Your task to perform on an android device: Go to calendar. Show me events next week Image 0: 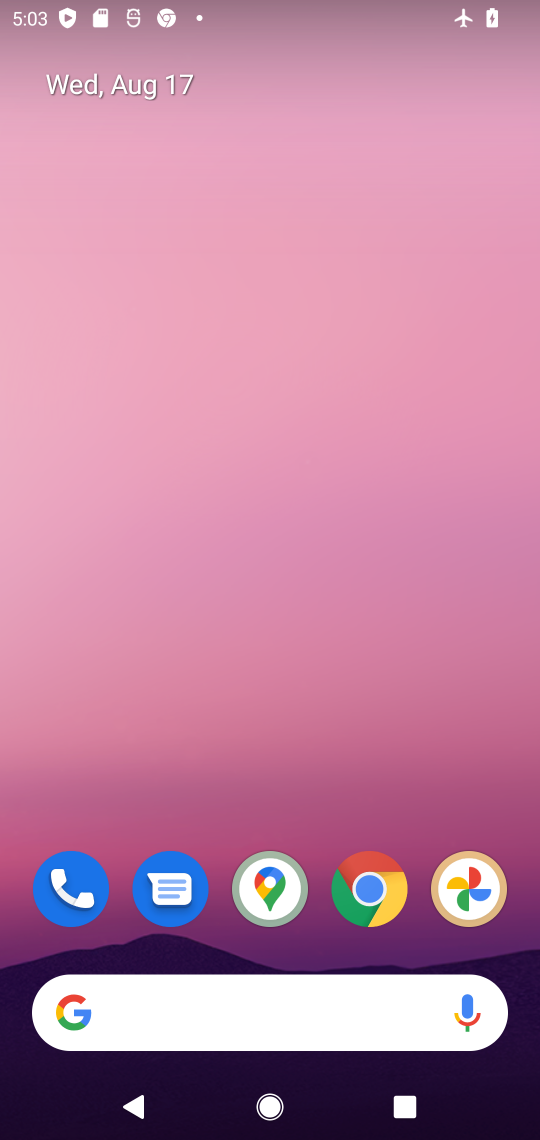
Step 0: drag from (324, 789) to (344, 138)
Your task to perform on an android device: Go to calendar. Show me events next week Image 1: 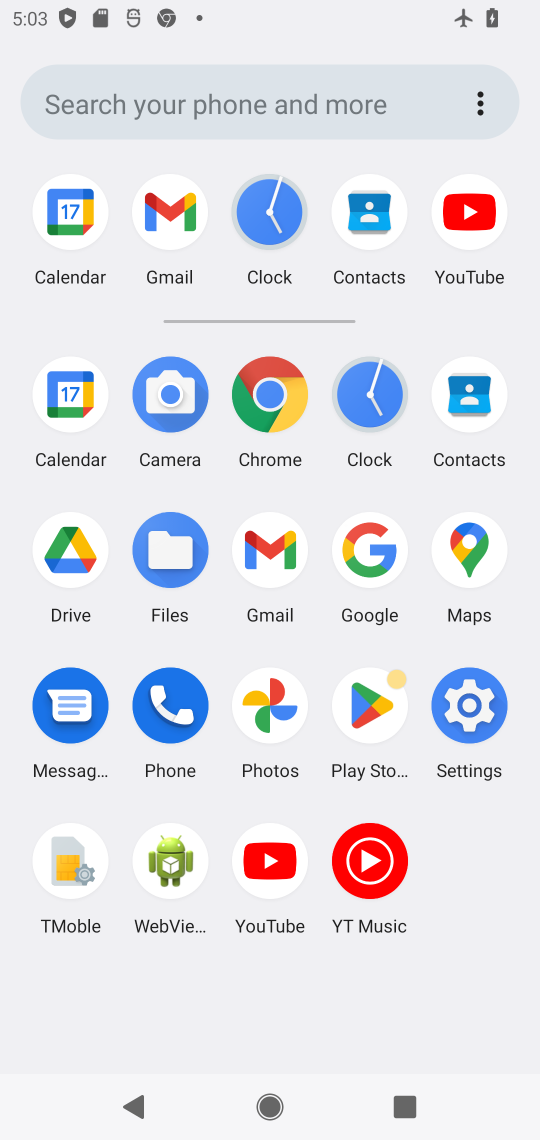
Step 1: click (69, 389)
Your task to perform on an android device: Go to calendar. Show me events next week Image 2: 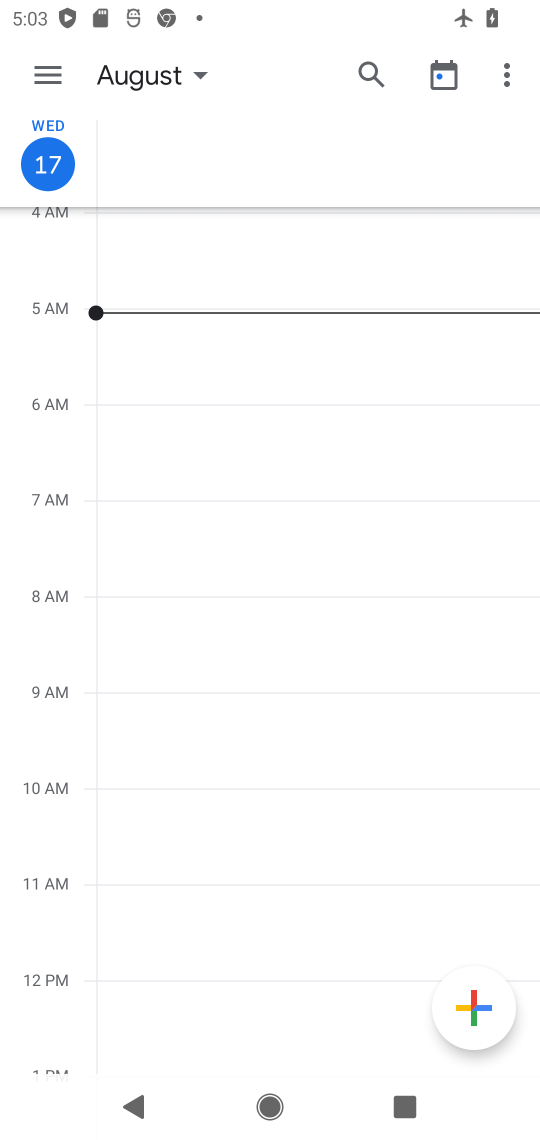
Step 2: click (56, 72)
Your task to perform on an android device: Go to calendar. Show me events next week Image 3: 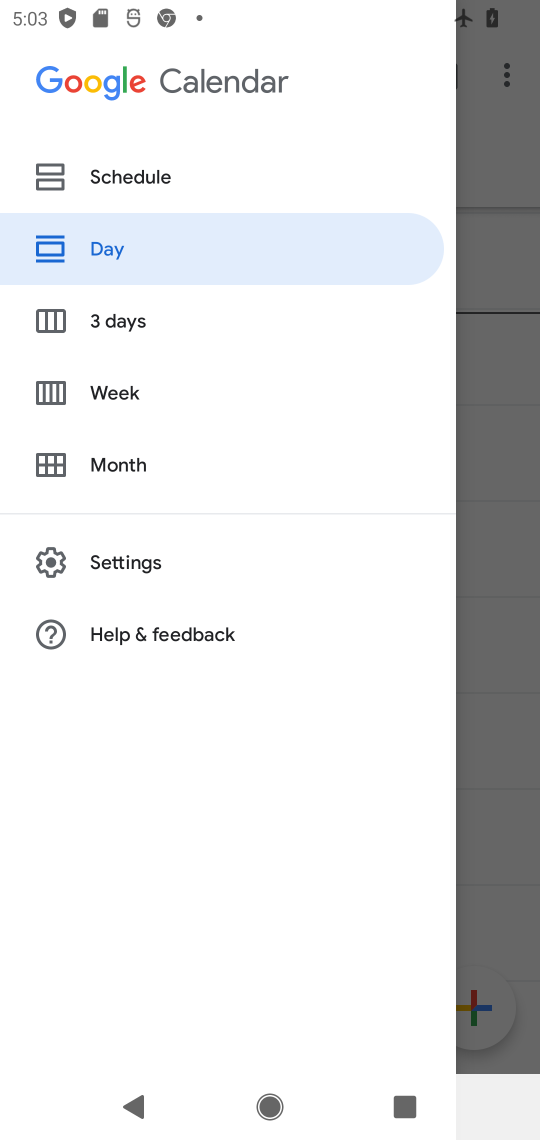
Step 3: click (121, 396)
Your task to perform on an android device: Go to calendar. Show me events next week Image 4: 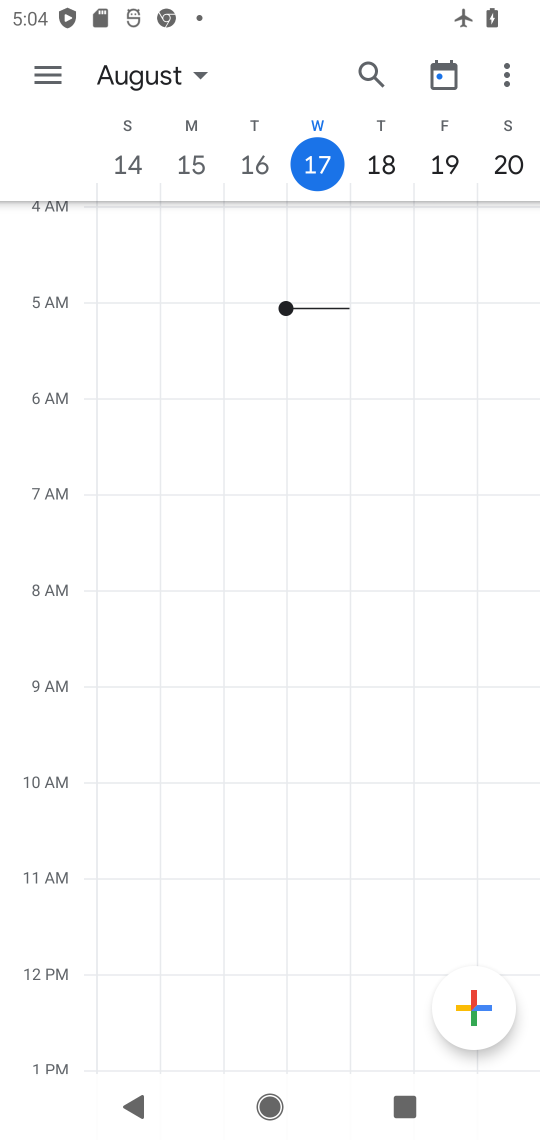
Step 4: click (185, 72)
Your task to perform on an android device: Go to calendar. Show me events next week Image 5: 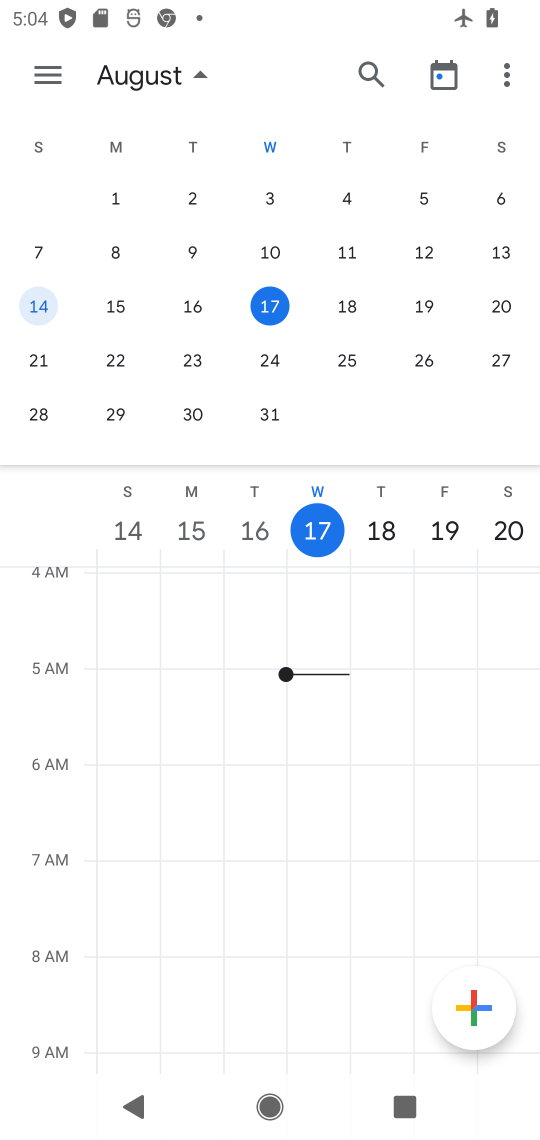
Step 5: click (264, 355)
Your task to perform on an android device: Go to calendar. Show me events next week Image 6: 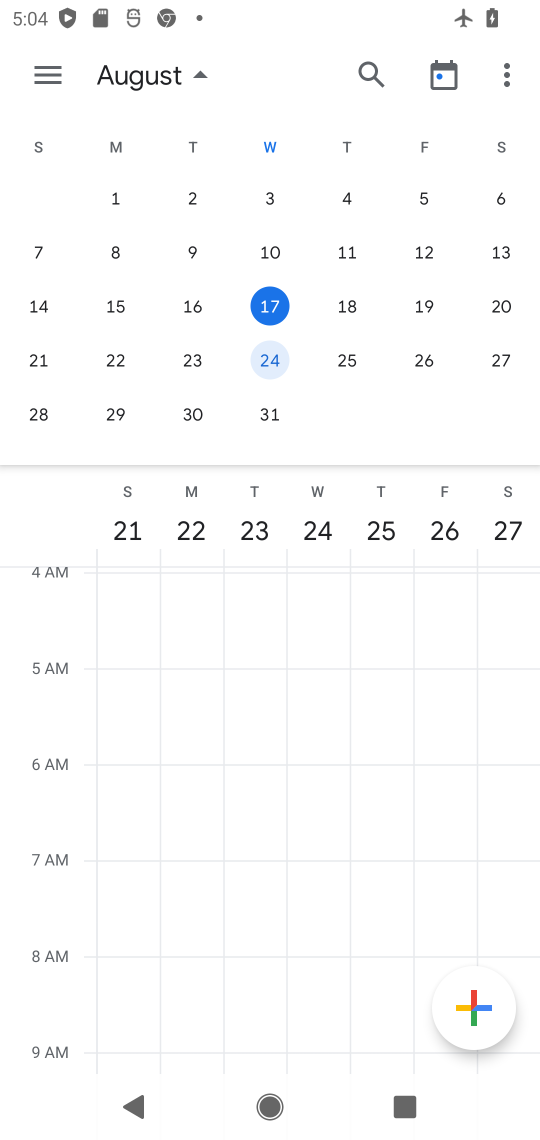
Step 6: task complete